Your task to perform on an android device: Open calendar and show me the fourth week of next month Image 0: 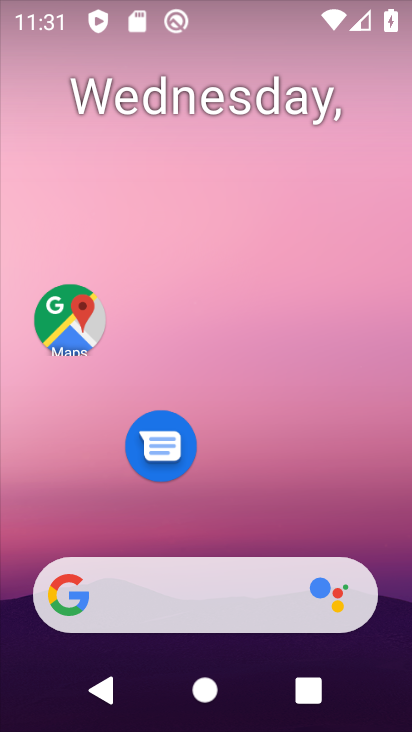
Step 0: drag from (273, 396) to (104, 118)
Your task to perform on an android device: Open calendar and show me the fourth week of next month Image 1: 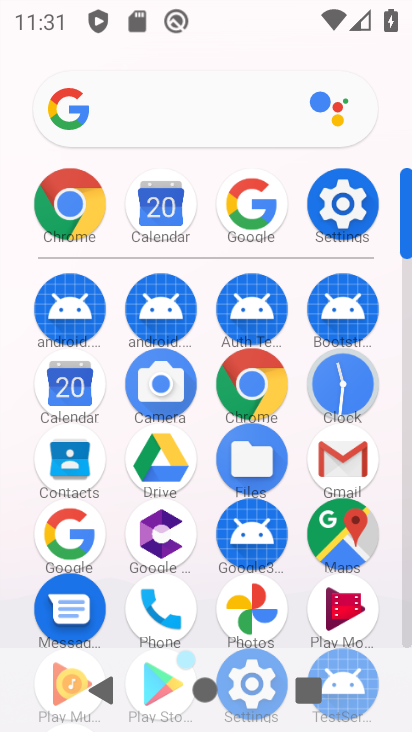
Step 1: click (152, 215)
Your task to perform on an android device: Open calendar and show me the fourth week of next month Image 2: 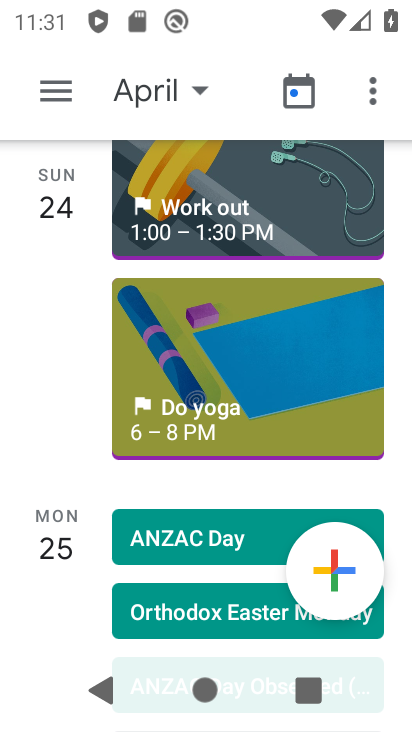
Step 2: click (183, 93)
Your task to perform on an android device: Open calendar and show me the fourth week of next month Image 3: 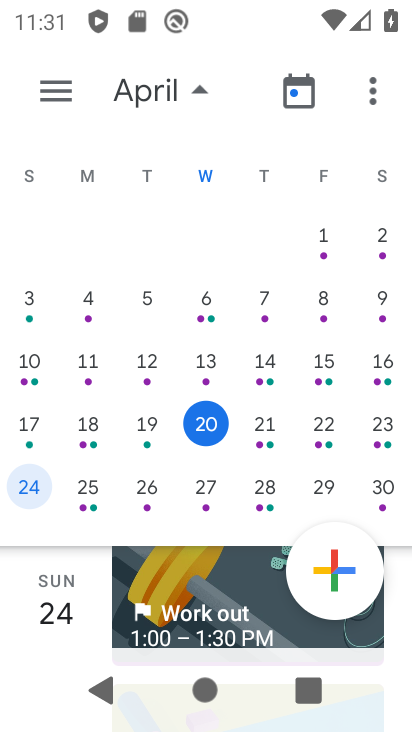
Step 3: drag from (317, 412) to (21, 411)
Your task to perform on an android device: Open calendar and show me the fourth week of next month Image 4: 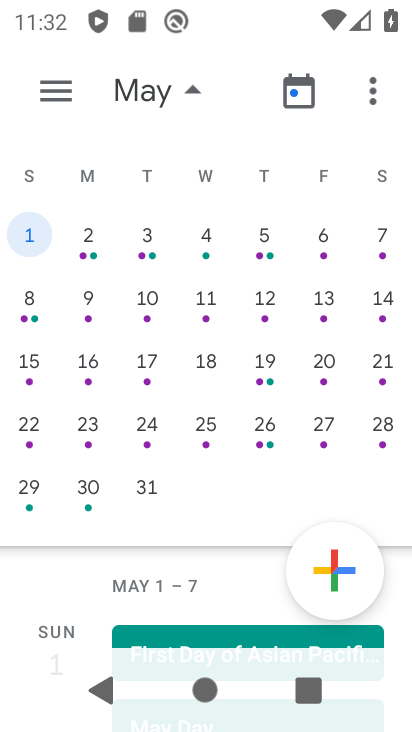
Step 4: click (29, 425)
Your task to perform on an android device: Open calendar and show me the fourth week of next month Image 5: 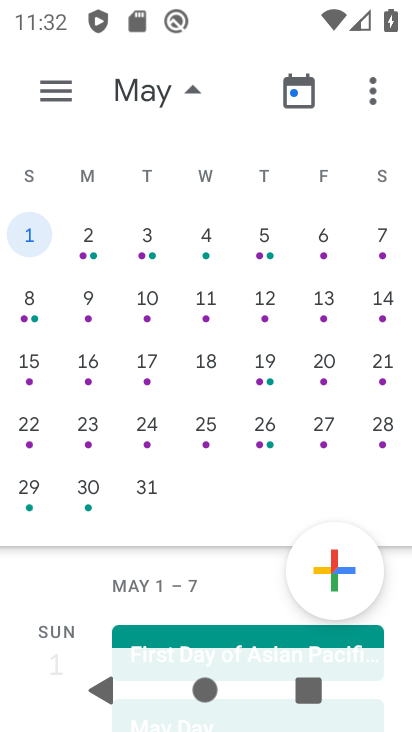
Step 5: click (29, 422)
Your task to perform on an android device: Open calendar and show me the fourth week of next month Image 6: 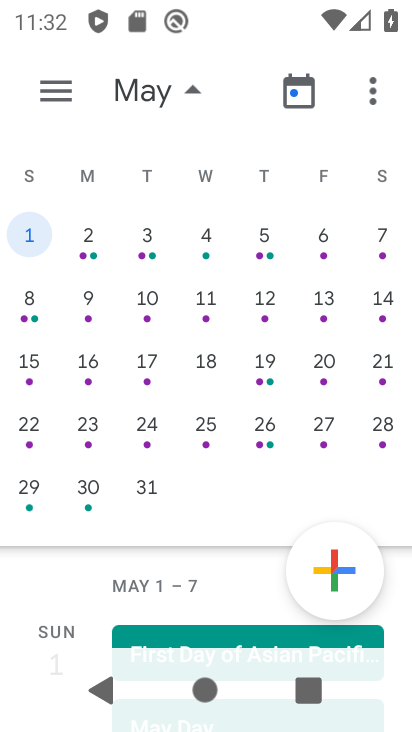
Step 6: click (35, 422)
Your task to perform on an android device: Open calendar and show me the fourth week of next month Image 7: 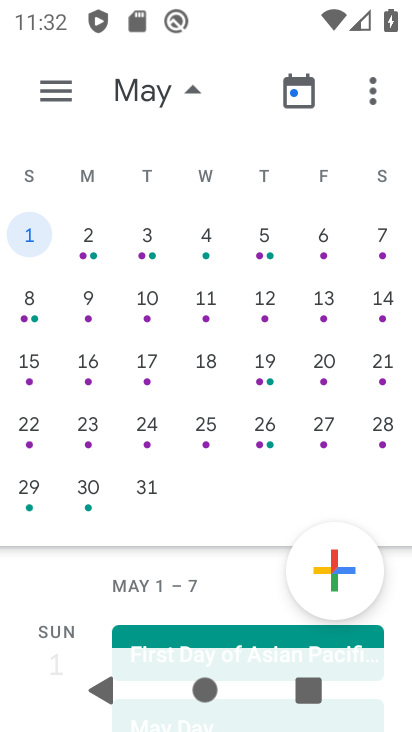
Step 7: click (62, 95)
Your task to perform on an android device: Open calendar and show me the fourth week of next month Image 8: 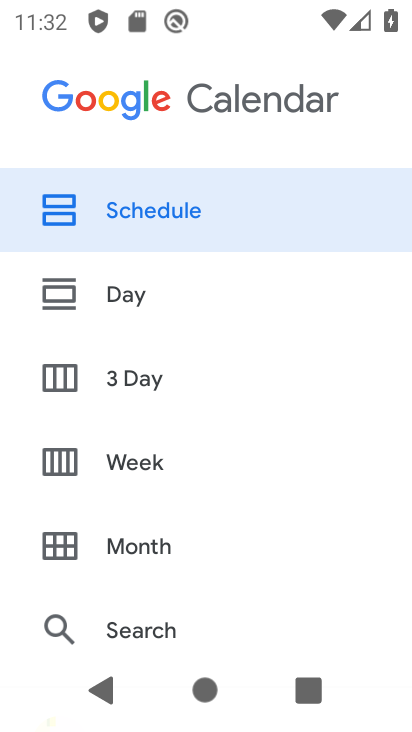
Step 8: click (111, 458)
Your task to perform on an android device: Open calendar and show me the fourth week of next month Image 9: 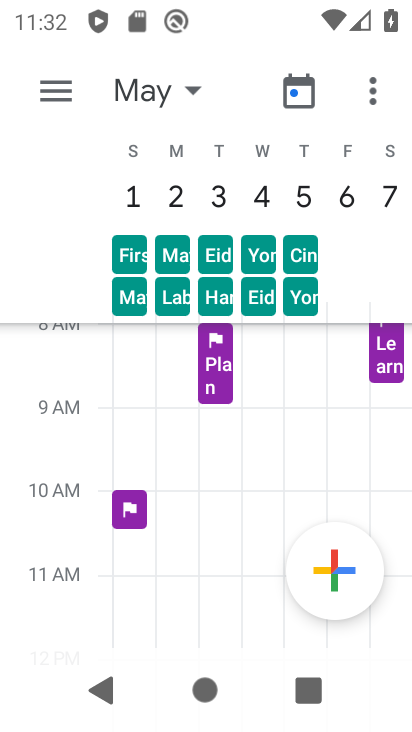
Step 9: task complete